Your task to perform on an android device: delete location history Image 0: 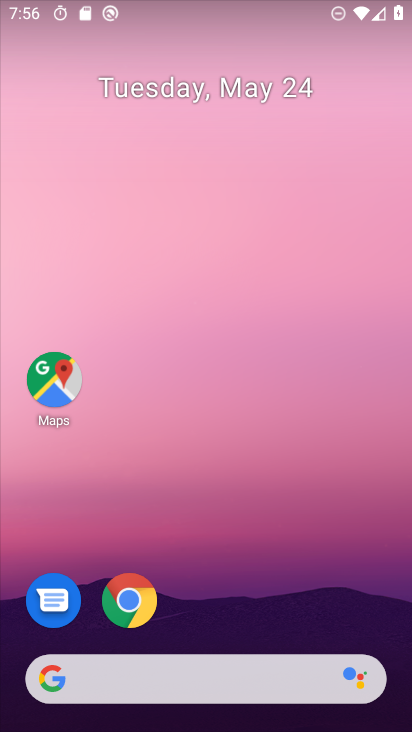
Step 0: click (49, 397)
Your task to perform on an android device: delete location history Image 1: 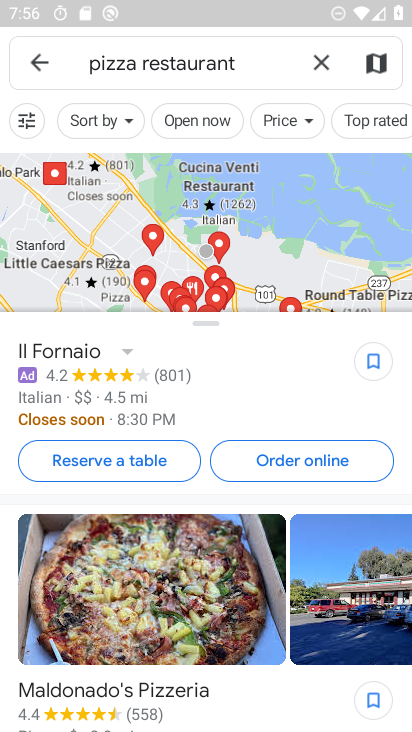
Step 1: click (41, 58)
Your task to perform on an android device: delete location history Image 2: 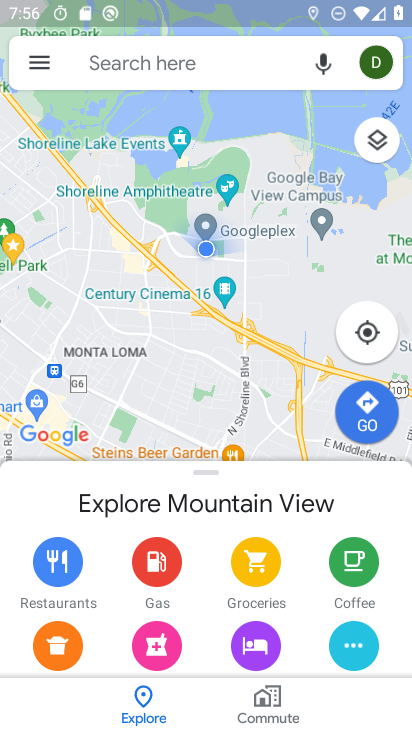
Step 2: click (38, 53)
Your task to perform on an android device: delete location history Image 3: 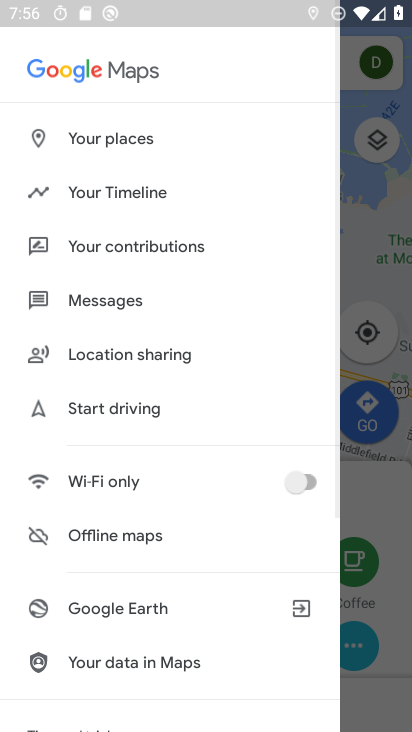
Step 3: click (131, 197)
Your task to perform on an android device: delete location history Image 4: 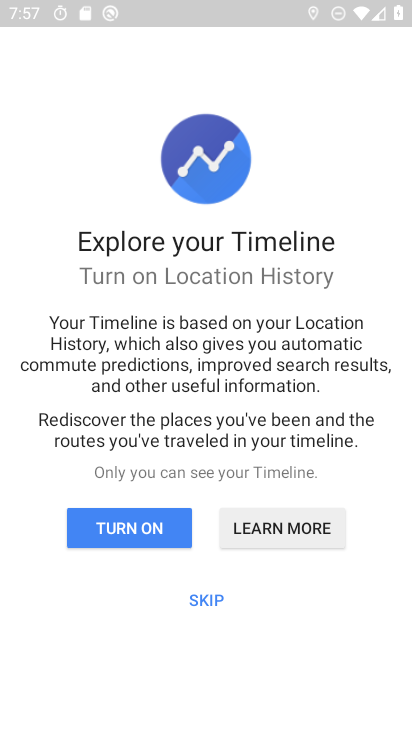
Step 4: click (204, 600)
Your task to perform on an android device: delete location history Image 5: 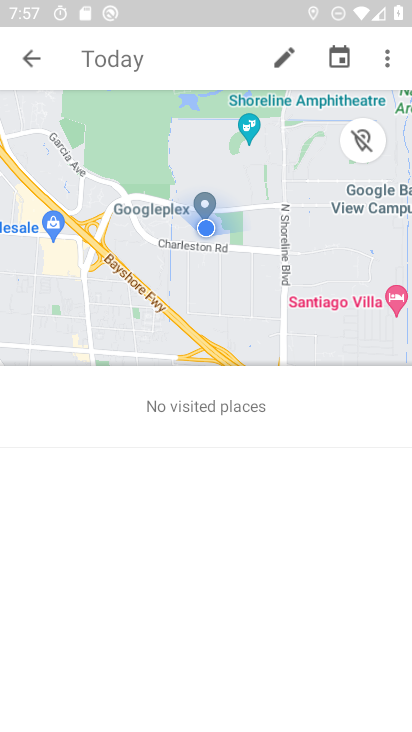
Step 5: click (388, 52)
Your task to perform on an android device: delete location history Image 6: 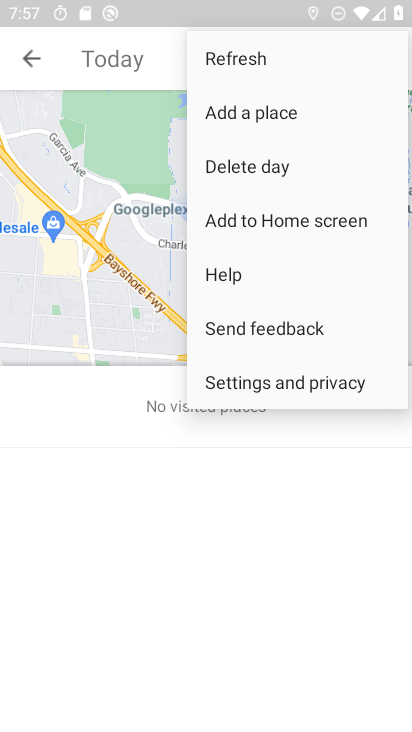
Step 6: click (305, 388)
Your task to perform on an android device: delete location history Image 7: 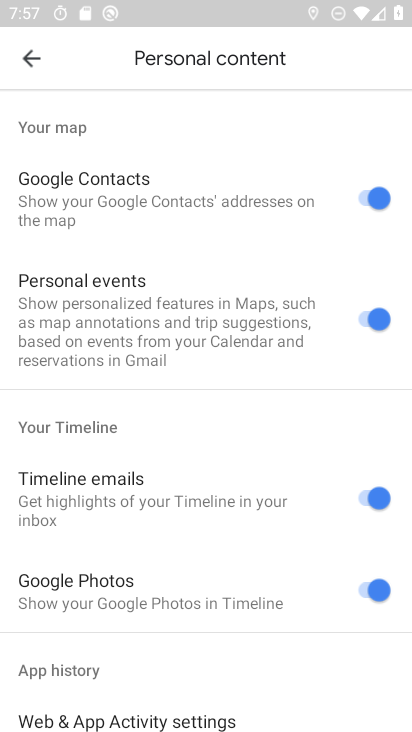
Step 7: drag from (136, 684) to (248, 6)
Your task to perform on an android device: delete location history Image 8: 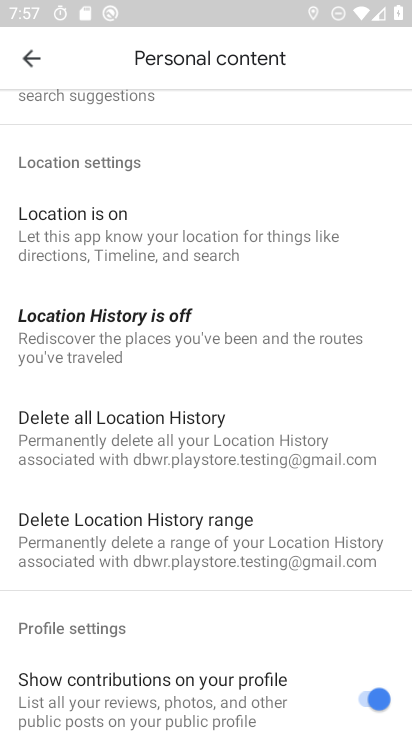
Step 8: click (93, 439)
Your task to perform on an android device: delete location history Image 9: 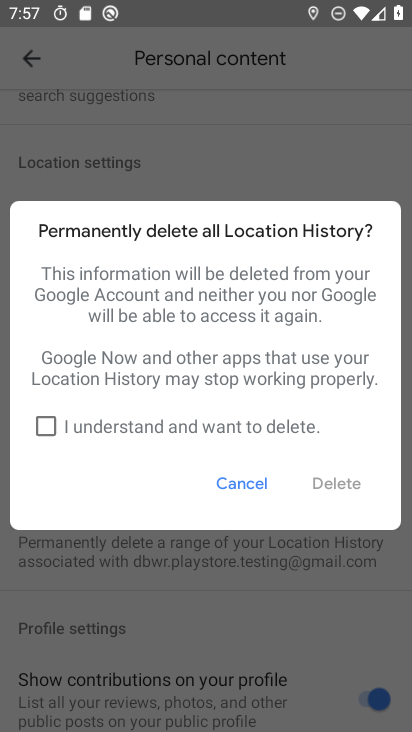
Step 9: click (47, 421)
Your task to perform on an android device: delete location history Image 10: 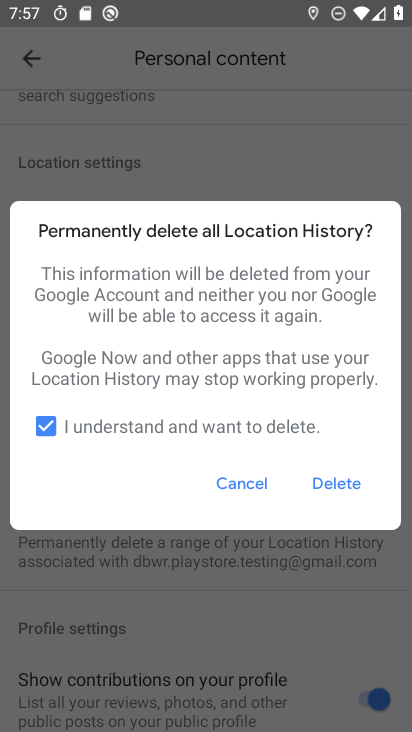
Step 10: click (344, 480)
Your task to perform on an android device: delete location history Image 11: 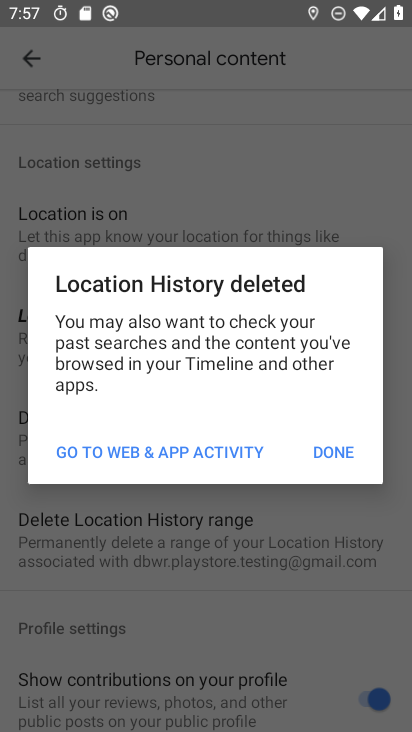
Step 11: click (330, 443)
Your task to perform on an android device: delete location history Image 12: 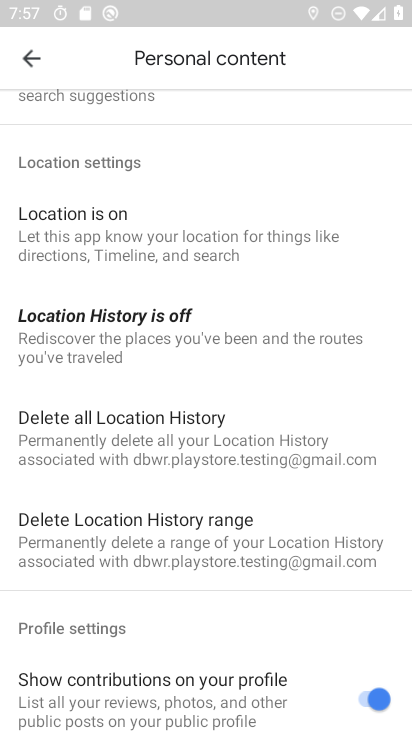
Step 12: task complete